Your task to perform on an android device: delete browsing data in the chrome app Image 0: 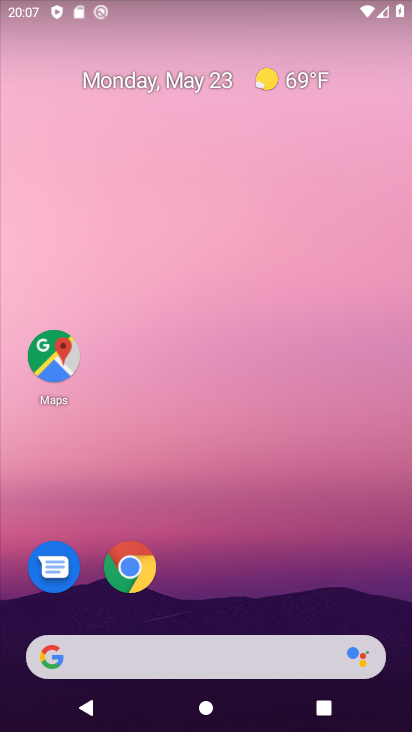
Step 0: click (135, 577)
Your task to perform on an android device: delete browsing data in the chrome app Image 1: 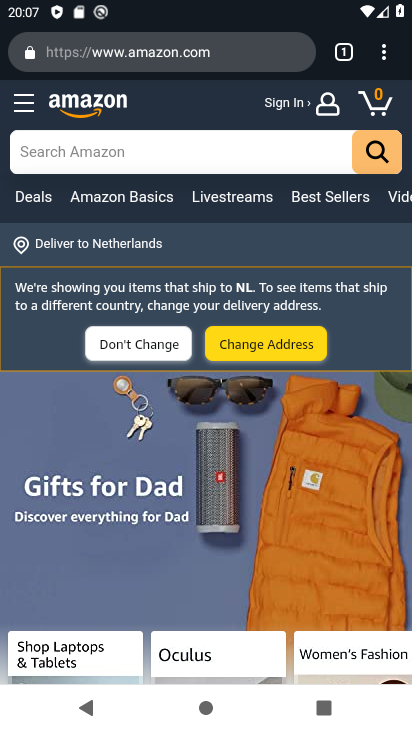
Step 1: click (382, 55)
Your task to perform on an android device: delete browsing data in the chrome app Image 2: 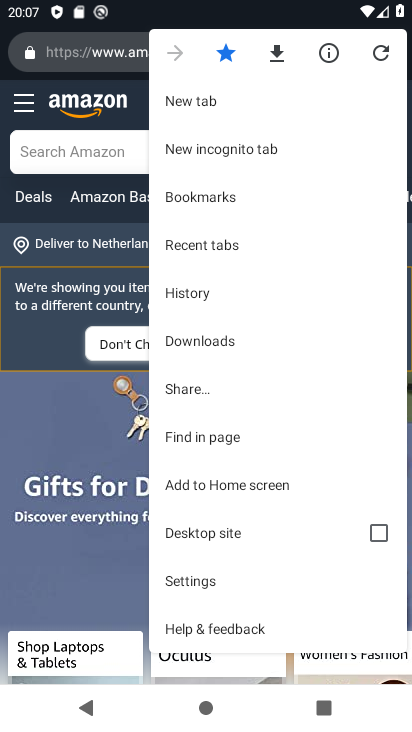
Step 2: click (197, 292)
Your task to perform on an android device: delete browsing data in the chrome app Image 3: 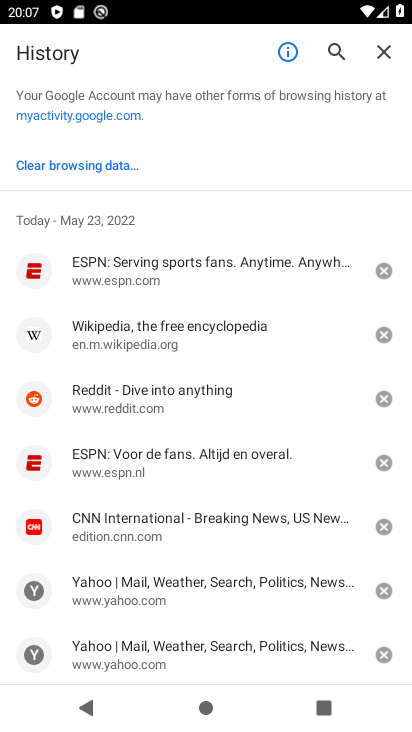
Step 3: click (52, 159)
Your task to perform on an android device: delete browsing data in the chrome app Image 4: 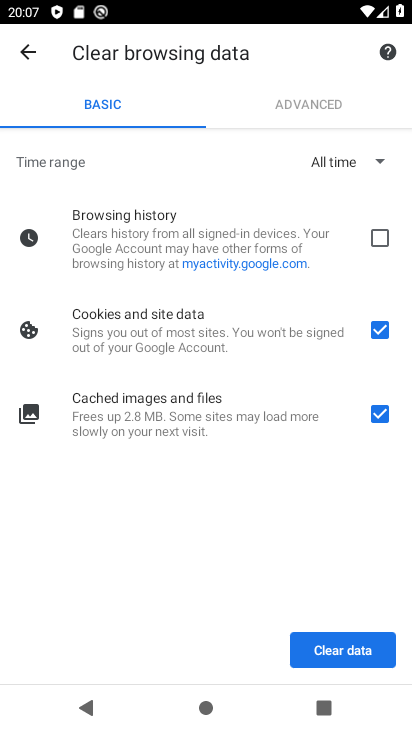
Step 4: click (370, 243)
Your task to perform on an android device: delete browsing data in the chrome app Image 5: 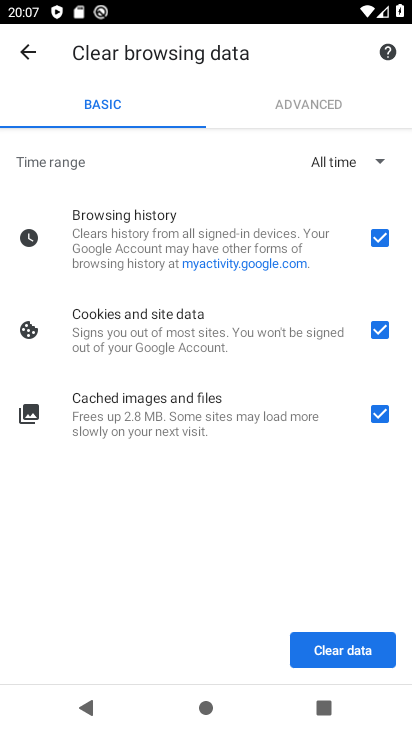
Step 5: click (333, 649)
Your task to perform on an android device: delete browsing data in the chrome app Image 6: 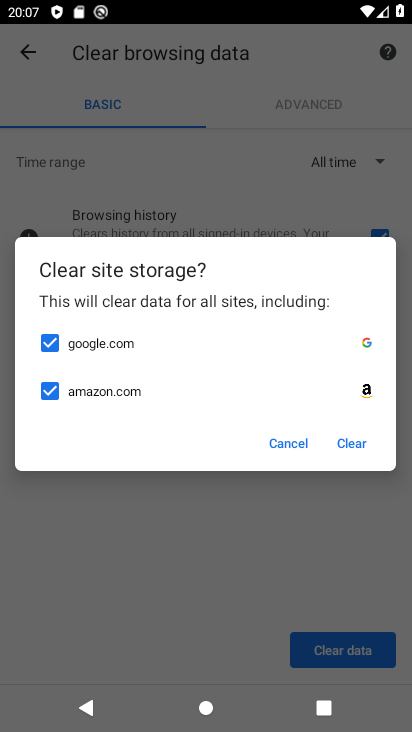
Step 6: click (360, 438)
Your task to perform on an android device: delete browsing data in the chrome app Image 7: 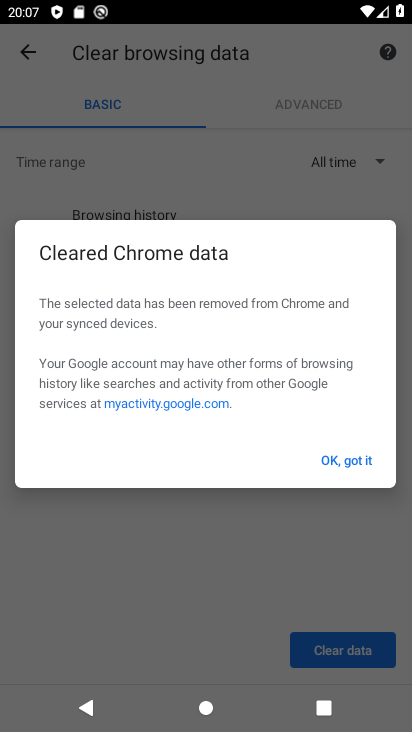
Step 7: click (359, 452)
Your task to perform on an android device: delete browsing data in the chrome app Image 8: 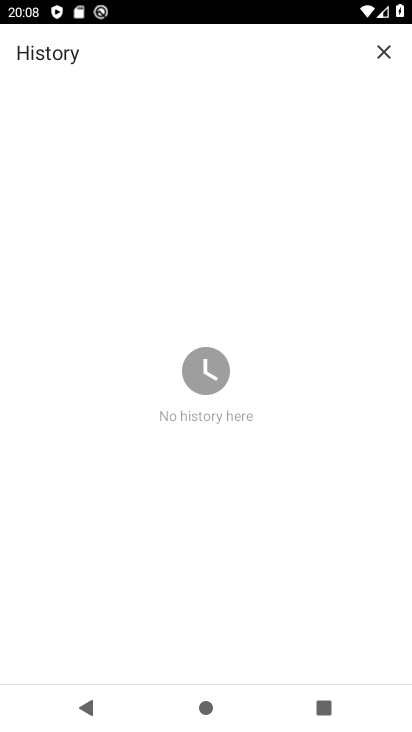
Step 8: task complete